Your task to perform on an android device: Open network settings Image 0: 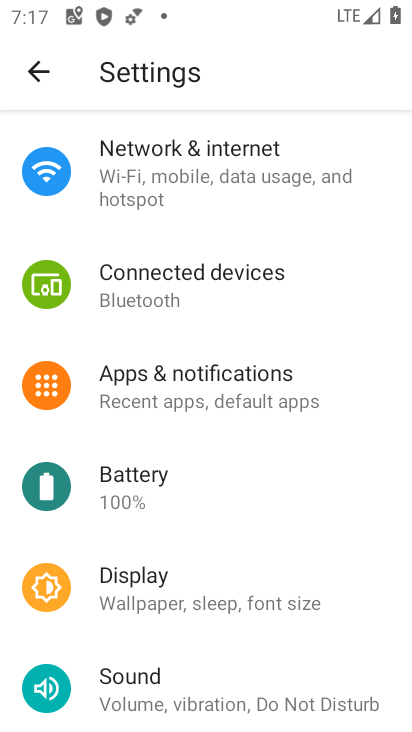
Step 0: click (183, 175)
Your task to perform on an android device: Open network settings Image 1: 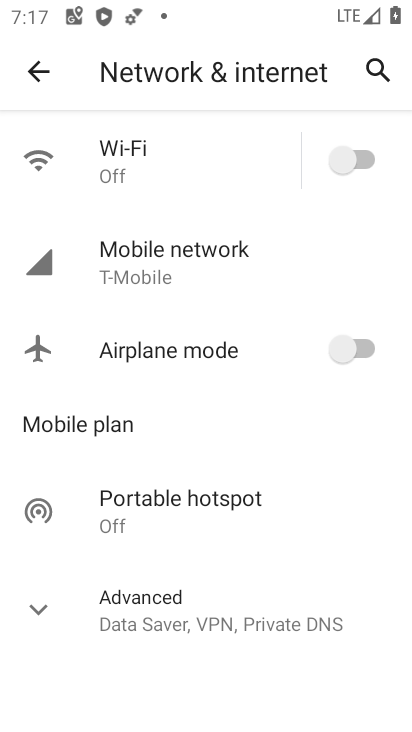
Step 1: task complete